Your task to perform on an android device: make emails show in primary in the gmail app Image 0: 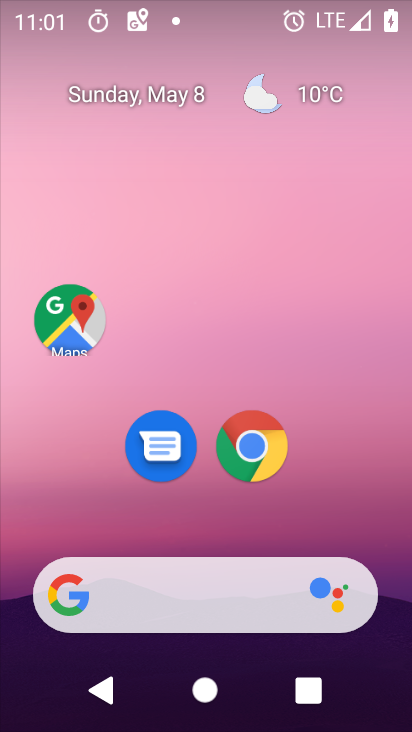
Step 0: drag from (379, 537) to (408, 83)
Your task to perform on an android device: make emails show in primary in the gmail app Image 1: 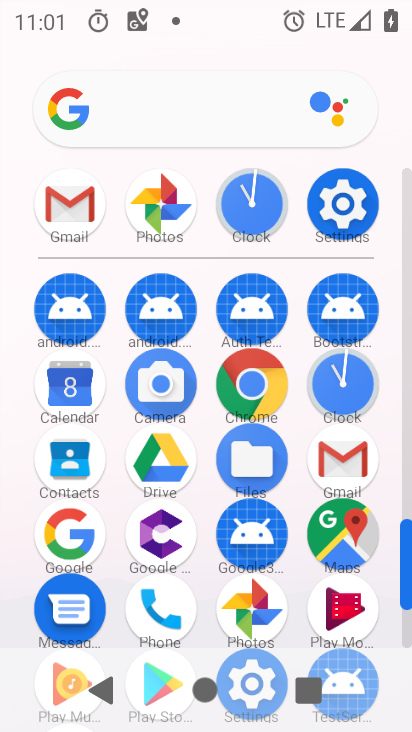
Step 1: click (75, 219)
Your task to perform on an android device: make emails show in primary in the gmail app Image 2: 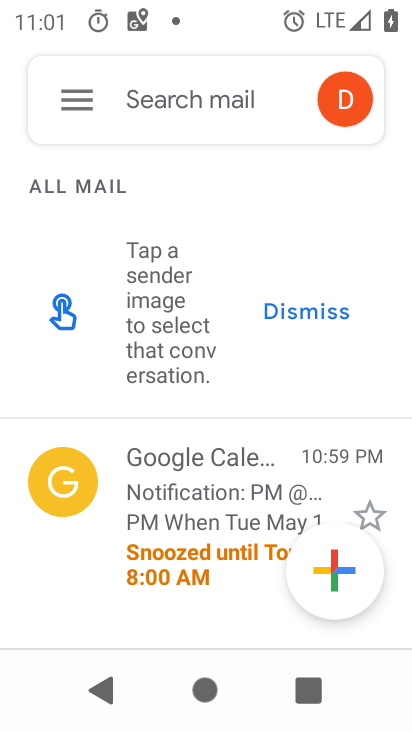
Step 2: click (69, 102)
Your task to perform on an android device: make emails show in primary in the gmail app Image 3: 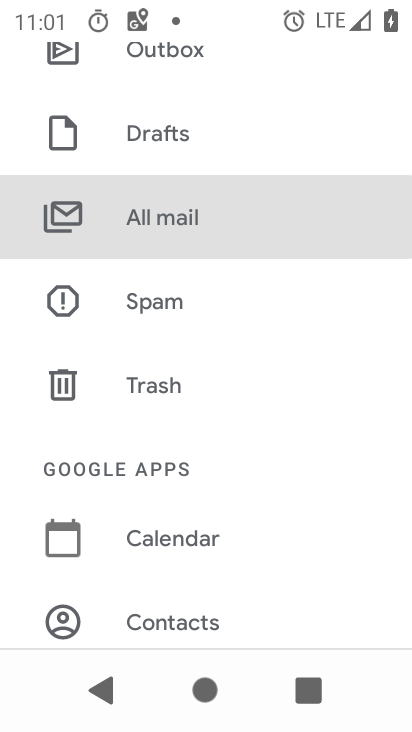
Step 3: drag from (270, 392) to (276, 614)
Your task to perform on an android device: make emails show in primary in the gmail app Image 4: 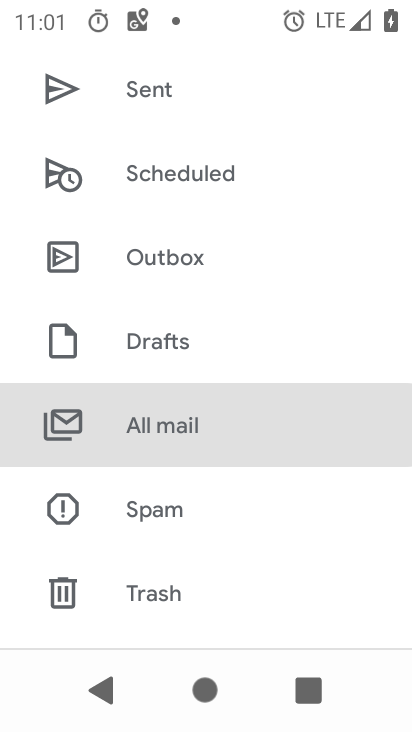
Step 4: drag from (256, 286) to (248, 573)
Your task to perform on an android device: make emails show in primary in the gmail app Image 5: 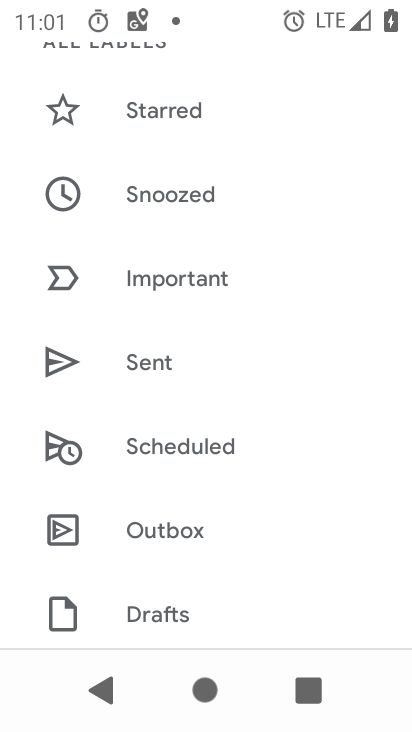
Step 5: drag from (281, 261) to (300, 64)
Your task to perform on an android device: make emails show in primary in the gmail app Image 6: 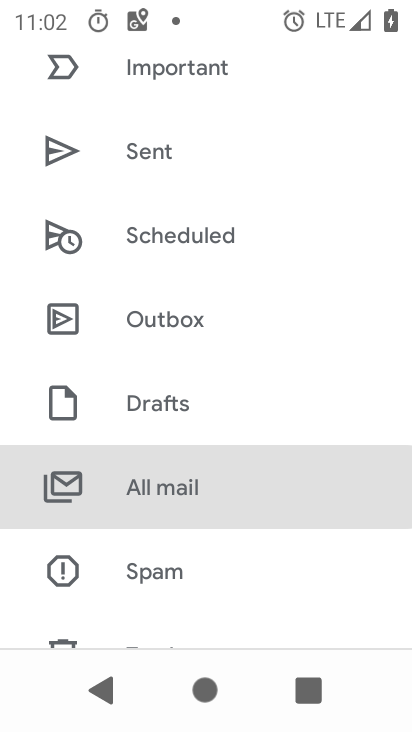
Step 6: drag from (266, 520) to (303, 124)
Your task to perform on an android device: make emails show in primary in the gmail app Image 7: 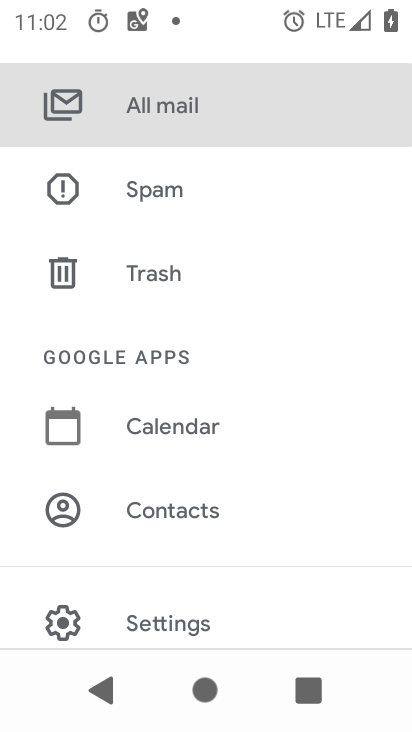
Step 7: drag from (236, 549) to (268, 132)
Your task to perform on an android device: make emails show in primary in the gmail app Image 8: 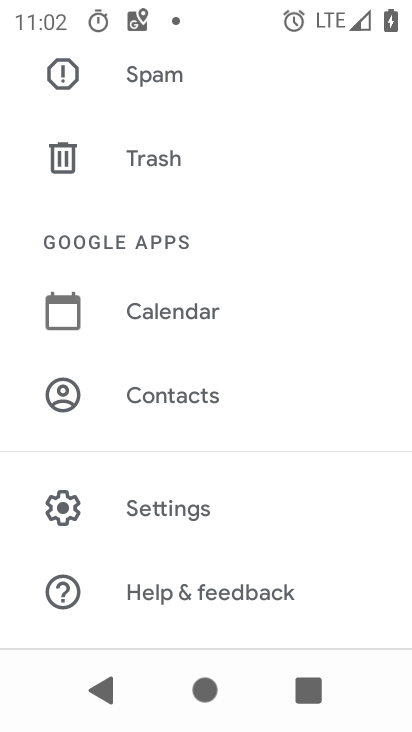
Step 8: click (168, 508)
Your task to perform on an android device: make emails show in primary in the gmail app Image 9: 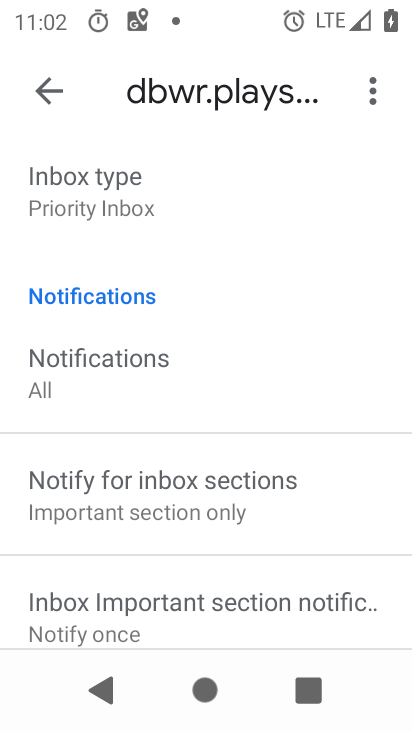
Step 9: task complete